Your task to perform on an android device: Go to calendar. Show me events next week Image 0: 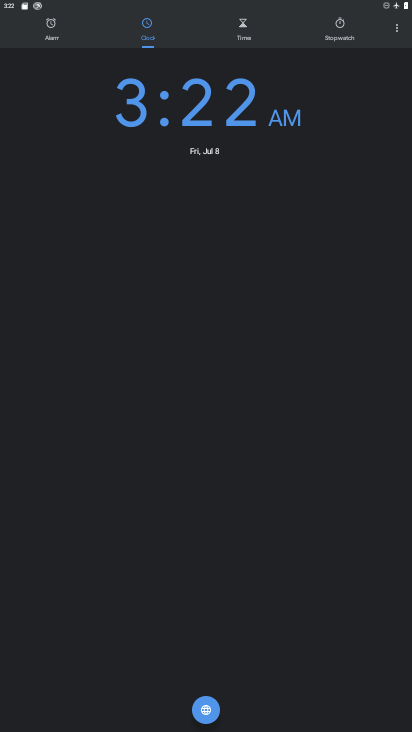
Step 0: press home button
Your task to perform on an android device: Go to calendar. Show me events next week Image 1: 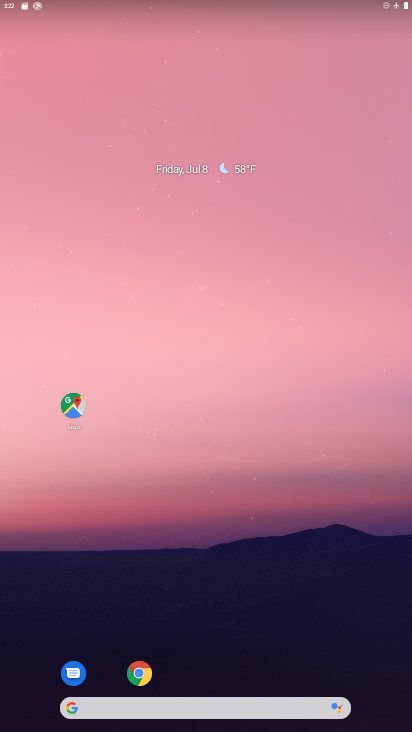
Step 1: drag from (205, 705) to (244, 470)
Your task to perform on an android device: Go to calendar. Show me events next week Image 2: 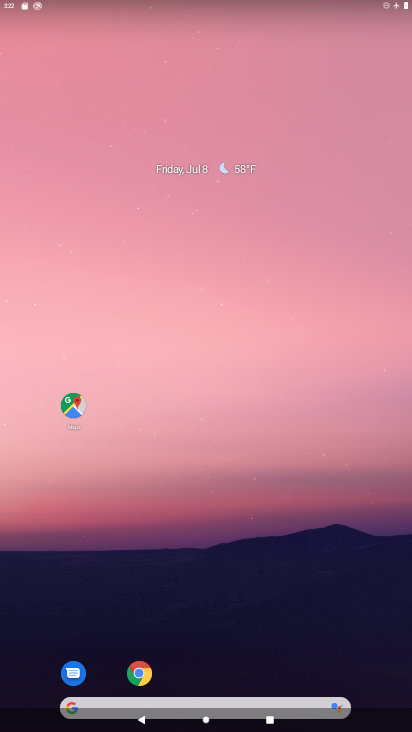
Step 2: drag from (218, 657) to (254, 369)
Your task to perform on an android device: Go to calendar. Show me events next week Image 3: 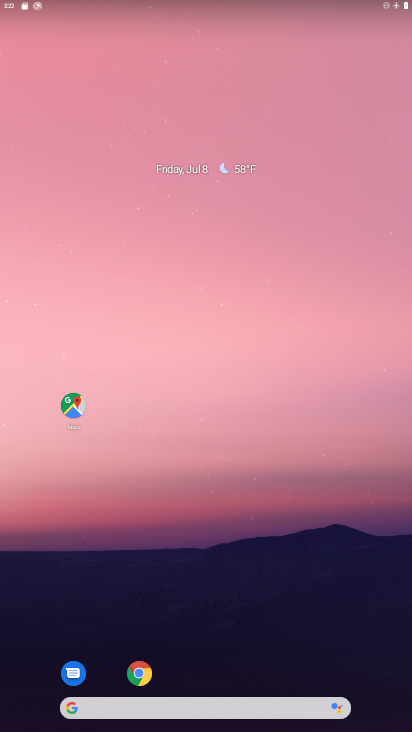
Step 3: drag from (238, 695) to (280, 276)
Your task to perform on an android device: Go to calendar. Show me events next week Image 4: 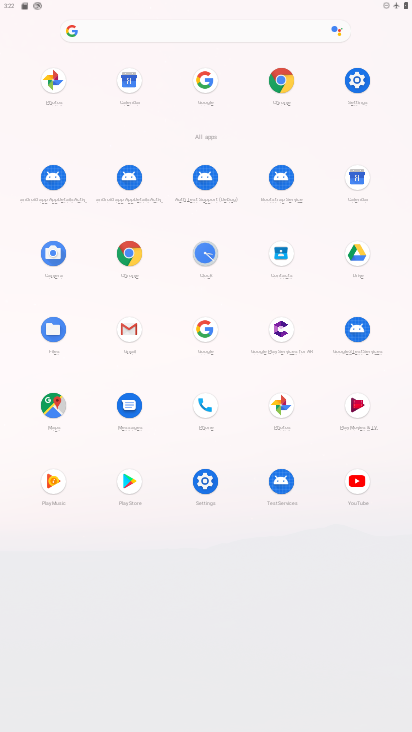
Step 4: click (356, 178)
Your task to perform on an android device: Go to calendar. Show me events next week Image 5: 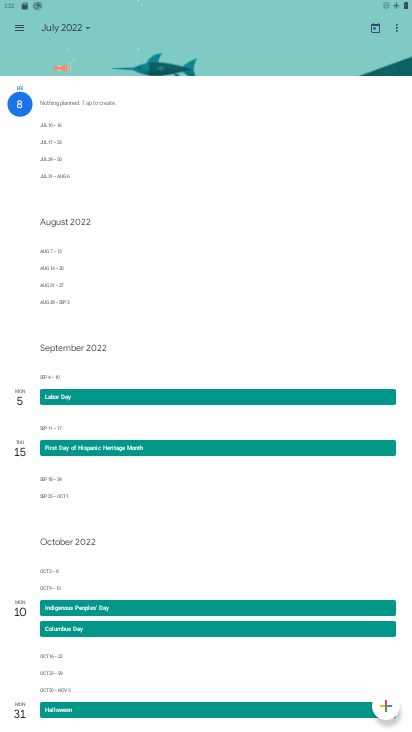
Step 5: click (69, 29)
Your task to perform on an android device: Go to calendar. Show me events next week Image 6: 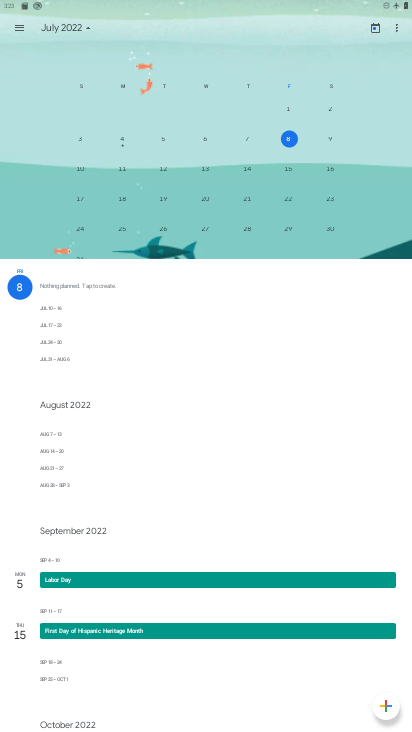
Step 6: click (87, 171)
Your task to perform on an android device: Go to calendar. Show me events next week Image 7: 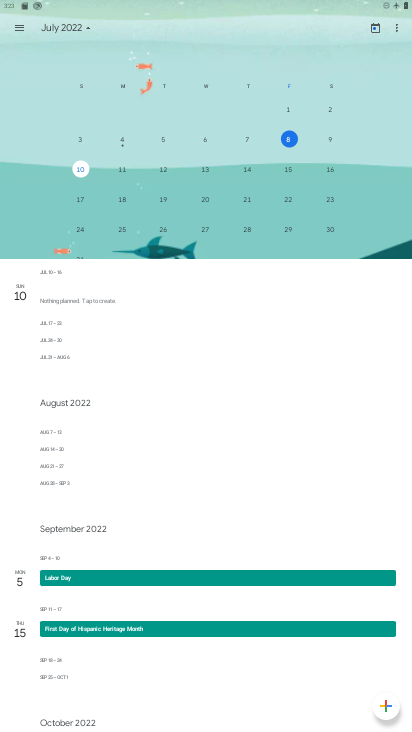
Step 7: click (125, 166)
Your task to perform on an android device: Go to calendar. Show me events next week Image 8: 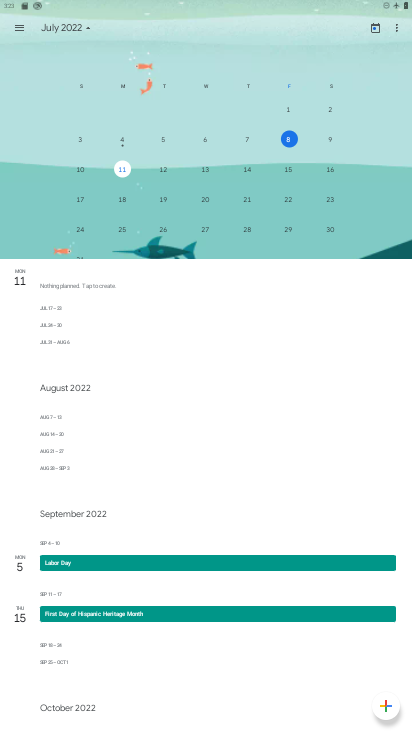
Step 8: task complete